Your task to perform on an android device: turn on bluetooth scan Image 0: 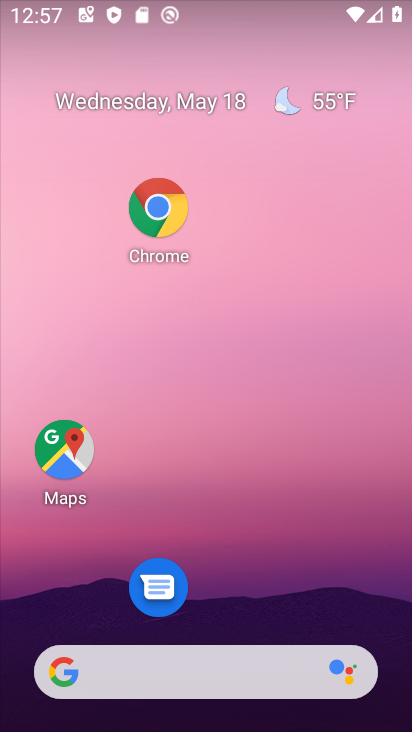
Step 0: drag from (249, 572) to (260, 190)
Your task to perform on an android device: turn on bluetooth scan Image 1: 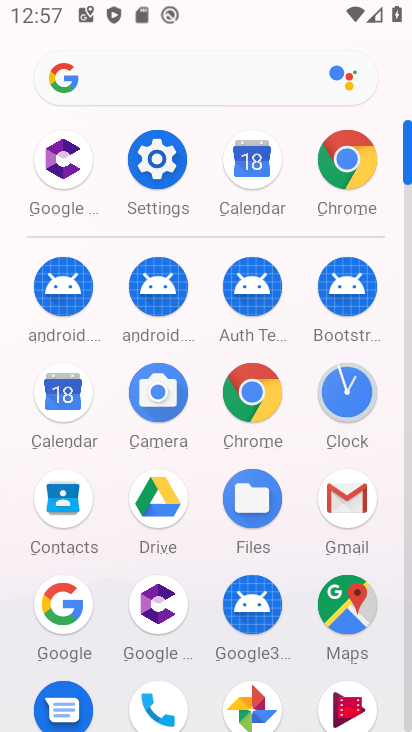
Step 1: click (173, 172)
Your task to perform on an android device: turn on bluetooth scan Image 2: 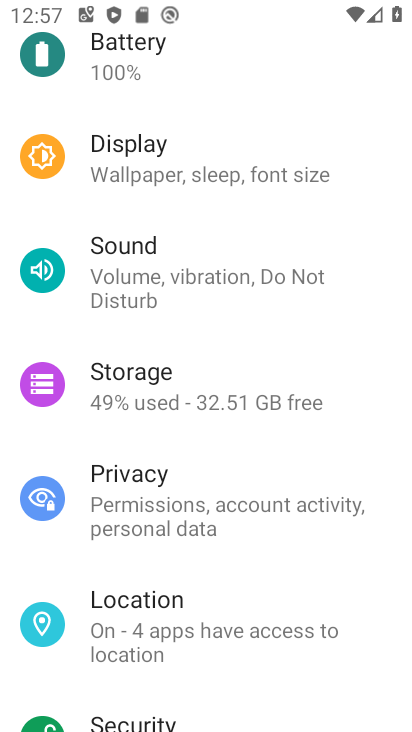
Step 2: click (133, 612)
Your task to perform on an android device: turn on bluetooth scan Image 3: 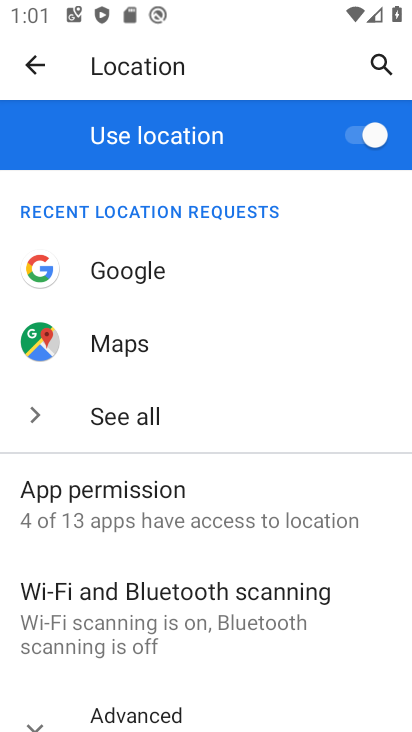
Step 3: drag from (180, 552) to (168, 491)
Your task to perform on an android device: turn on bluetooth scan Image 4: 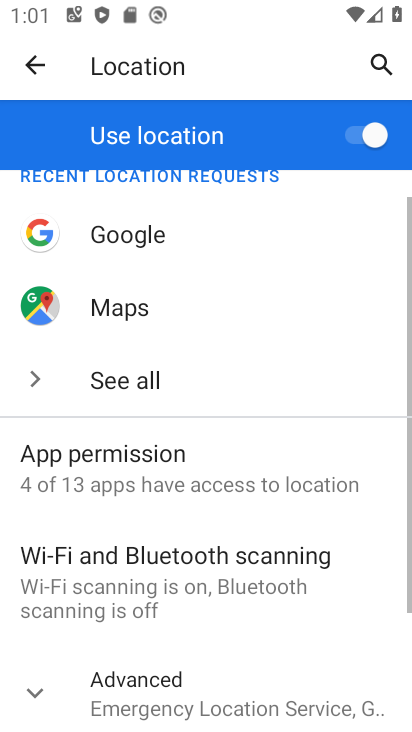
Step 4: click (167, 640)
Your task to perform on an android device: turn on bluetooth scan Image 5: 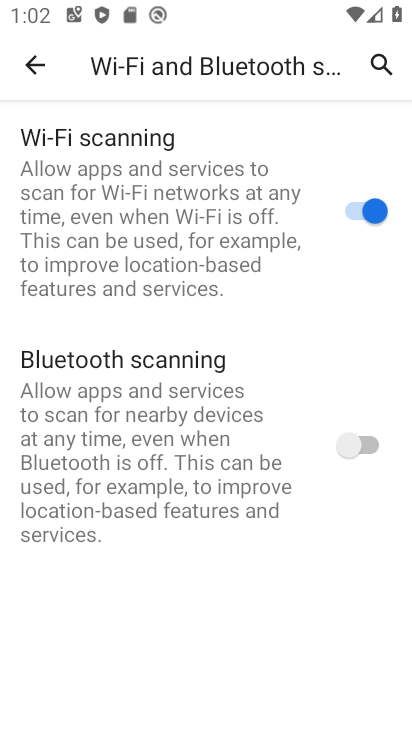
Step 5: click (373, 447)
Your task to perform on an android device: turn on bluetooth scan Image 6: 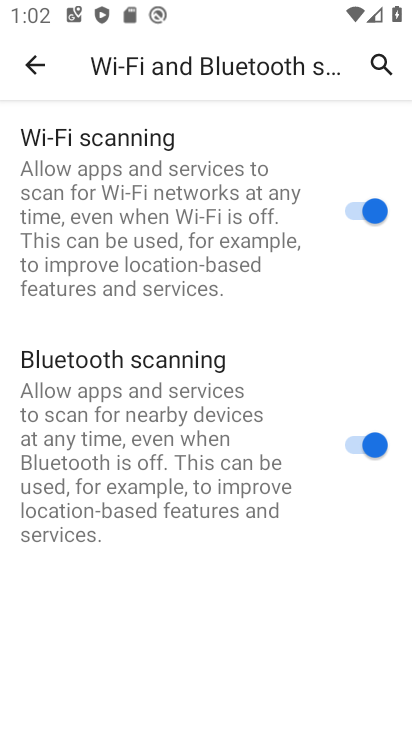
Step 6: task complete